Your task to perform on an android device: delete the emails in spam in the gmail app Image 0: 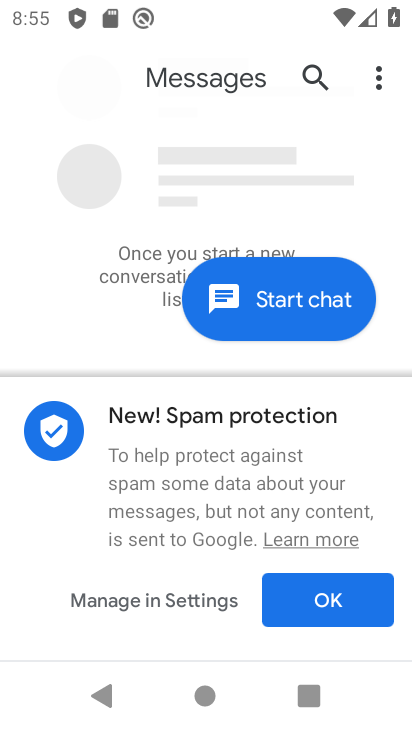
Step 0: press home button
Your task to perform on an android device: delete the emails in spam in the gmail app Image 1: 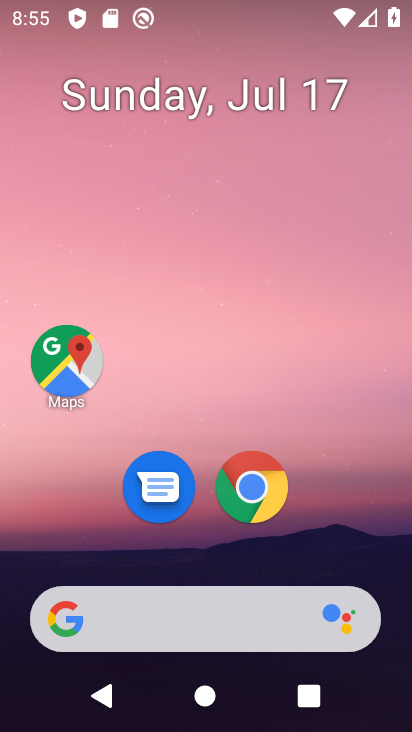
Step 1: drag from (347, 531) to (397, 101)
Your task to perform on an android device: delete the emails in spam in the gmail app Image 2: 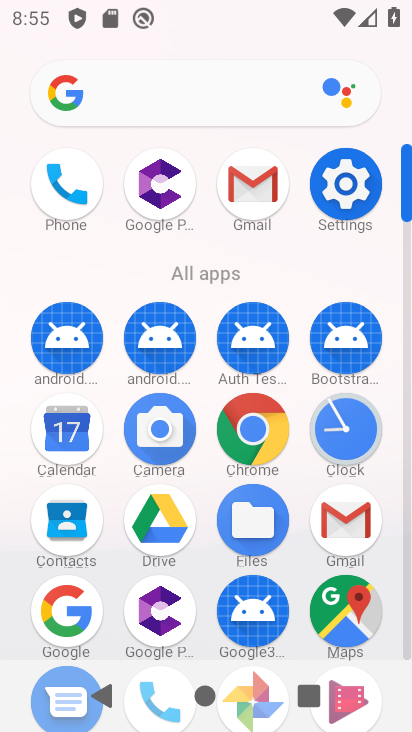
Step 2: click (263, 174)
Your task to perform on an android device: delete the emails in spam in the gmail app Image 3: 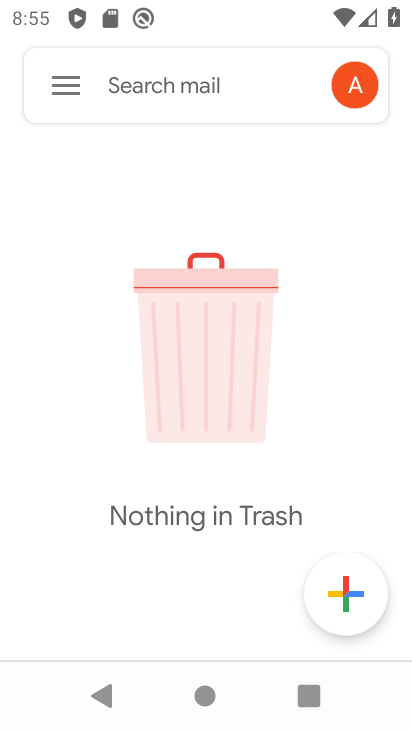
Step 3: task complete